Your task to perform on an android device: set default search engine in the chrome app Image 0: 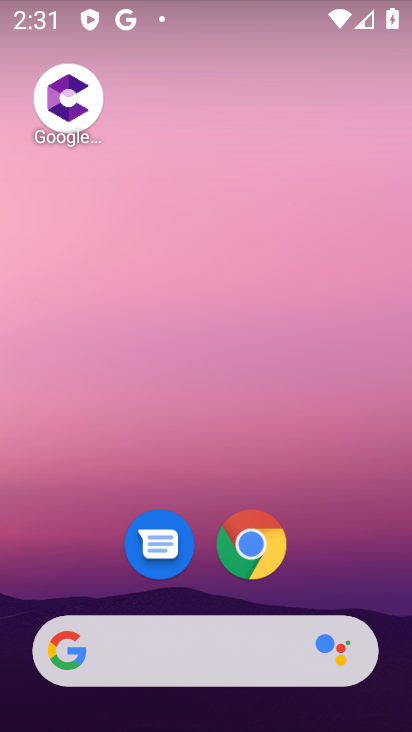
Step 0: click (255, 544)
Your task to perform on an android device: set default search engine in the chrome app Image 1: 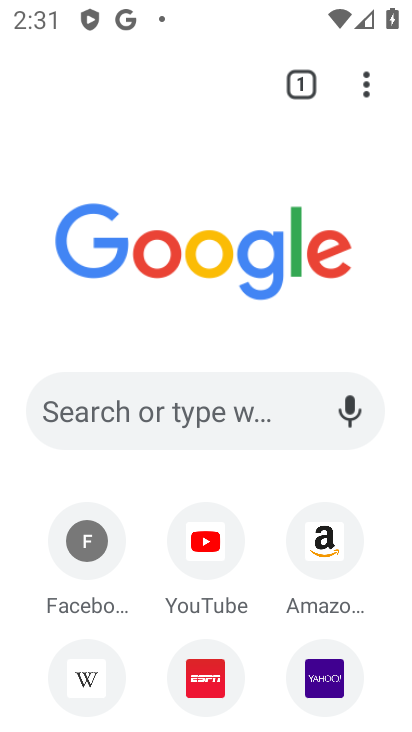
Step 1: drag from (363, 75) to (101, 589)
Your task to perform on an android device: set default search engine in the chrome app Image 2: 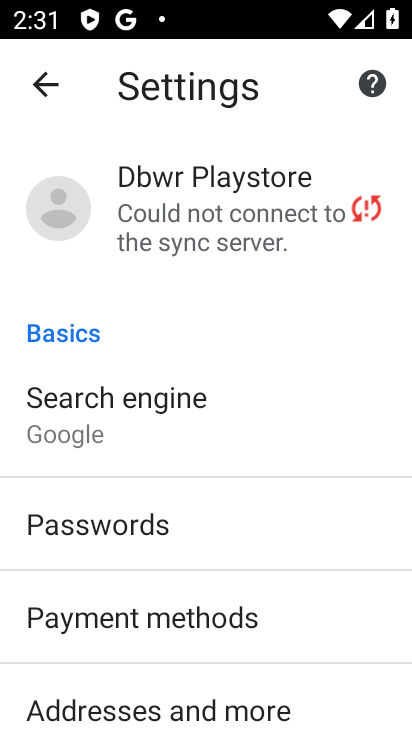
Step 2: click (44, 405)
Your task to perform on an android device: set default search engine in the chrome app Image 3: 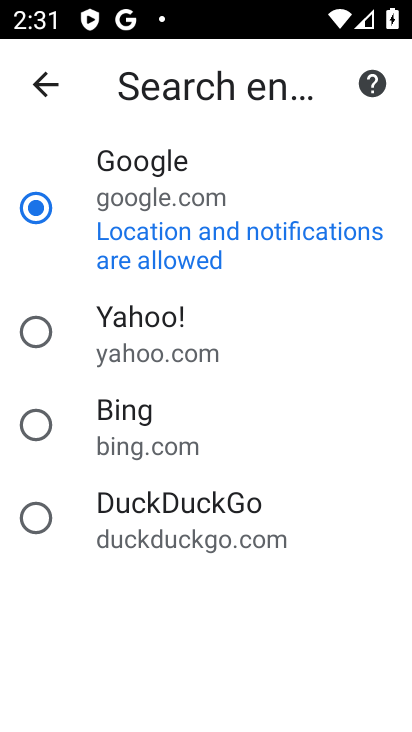
Step 3: click (45, 310)
Your task to perform on an android device: set default search engine in the chrome app Image 4: 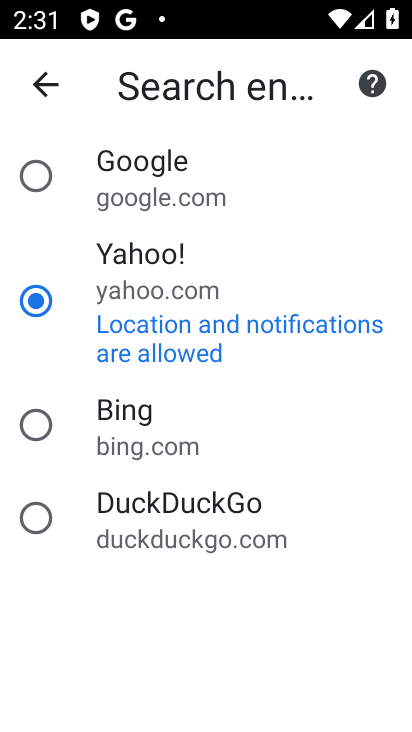
Step 4: task complete